Your task to perform on an android device: change text size in settings app Image 0: 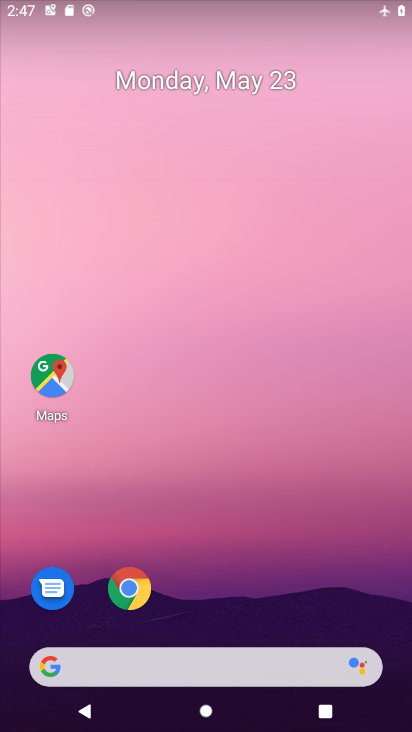
Step 0: drag from (204, 592) to (275, 149)
Your task to perform on an android device: change text size in settings app Image 1: 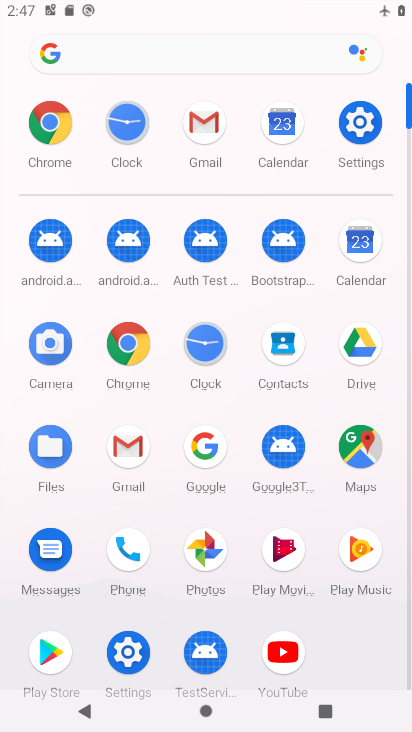
Step 1: drag from (247, 610) to (279, 170)
Your task to perform on an android device: change text size in settings app Image 2: 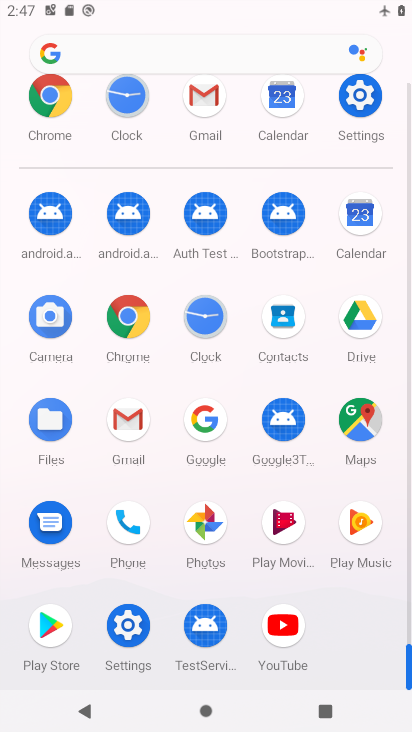
Step 2: click (117, 613)
Your task to perform on an android device: change text size in settings app Image 3: 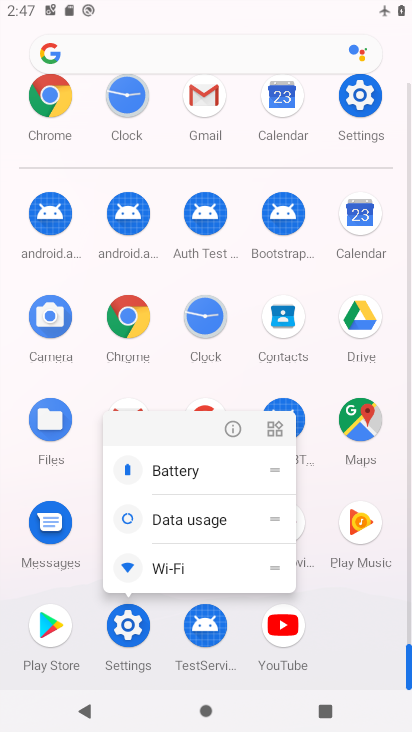
Step 3: click (227, 439)
Your task to perform on an android device: change text size in settings app Image 4: 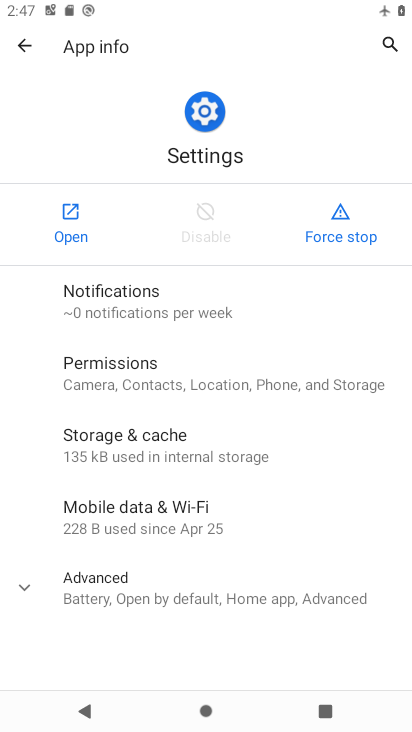
Step 4: click (69, 213)
Your task to perform on an android device: change text size in settings app Image 5: 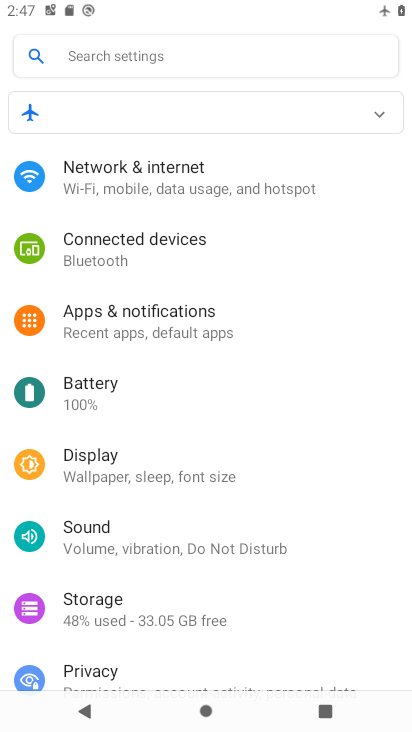
Step 5: click (160, 472)
Your task to perform on an android device: change text size in settings app Image 6: 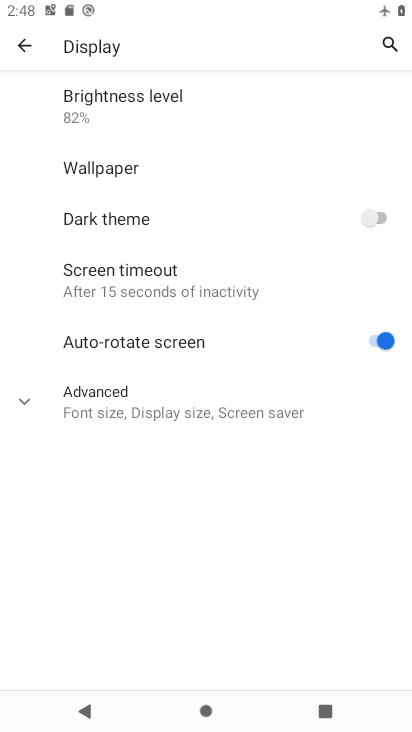
Step 6: click (175, 393)
Your task to perform on an android device: change text size in settings app Image 7: 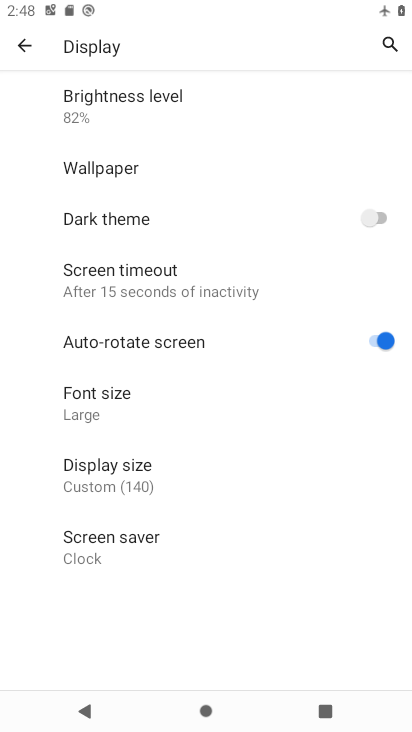
Step 7: click (137, 396)
Your task to perform on an android device: change text size in settings app Image 8: 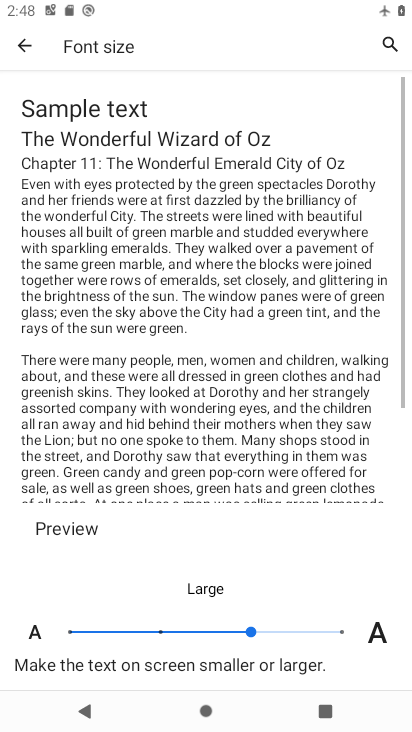
Step 8: drag from (244, 536) to (309, 64)
Your task to perform on an android device: change text size in settings app Image 9: 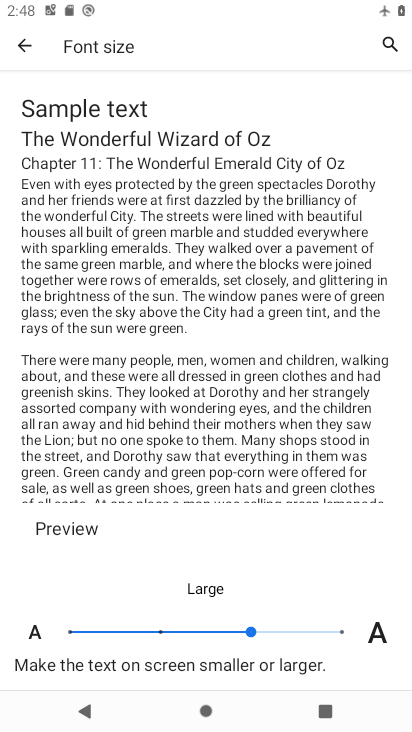
Step 9: drag from (259, 509) to (314, 40)
Your task to perform on an android device: change text size in settings app Image 10: 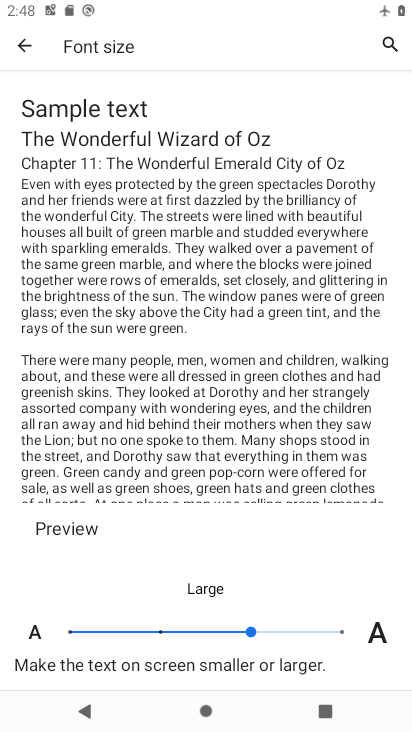
Step 10: click (156, 641)
Your task to perform on an android device: change text size in settings app Image 11: 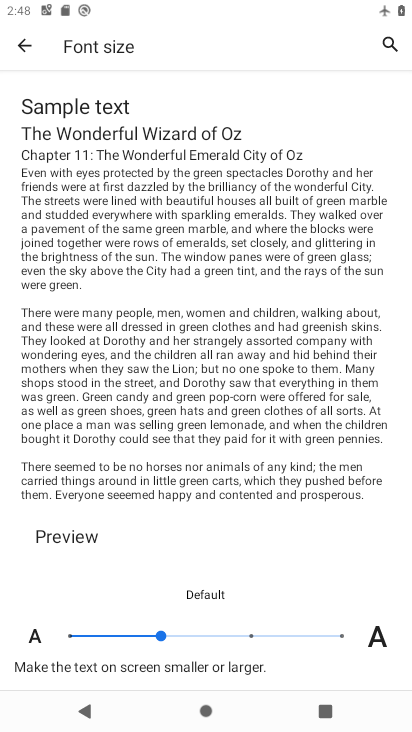
Step 11: task complete